Your task to perform on an android device: choose inbox layout in the gmail app Image 0: 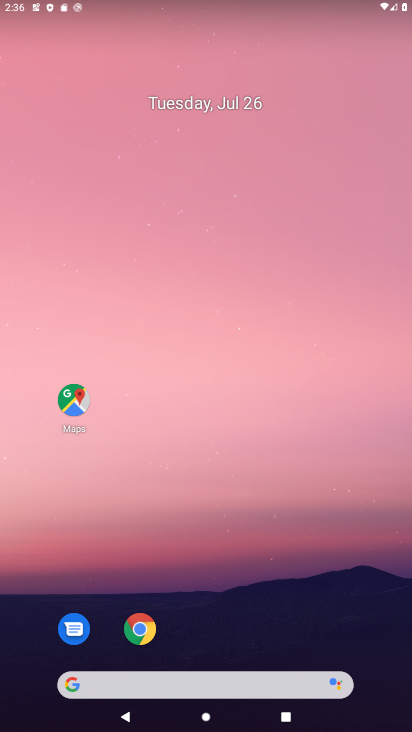
Step 0: drag from (210, 627) to (238, 233)
Your task to perform on an android device: choose inbox layout in the gmail app Image 1: 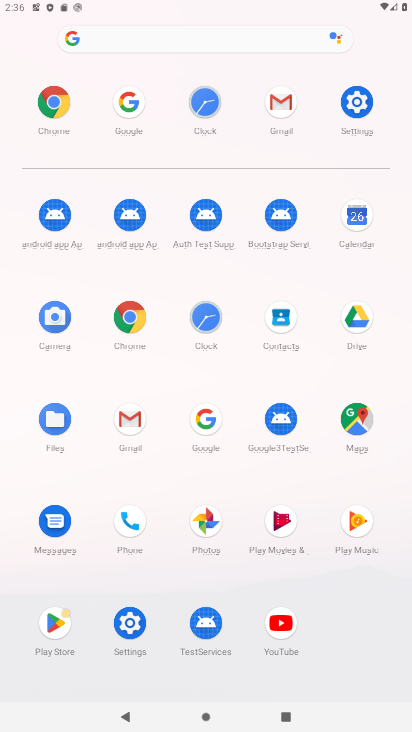
Step 1: click (281, 113)
Your task to perform on an android device: choose inbox layout in the gmail app Image 2: 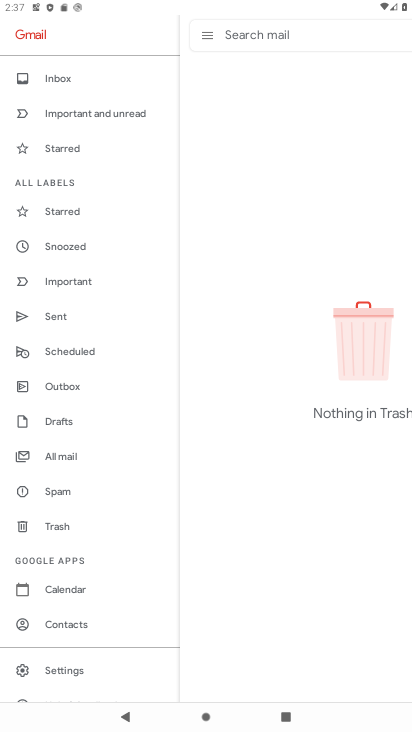
Step 2: click (90, 668)
Your task to perform on an android device: choose inbox layout in the gmail app Image 3: 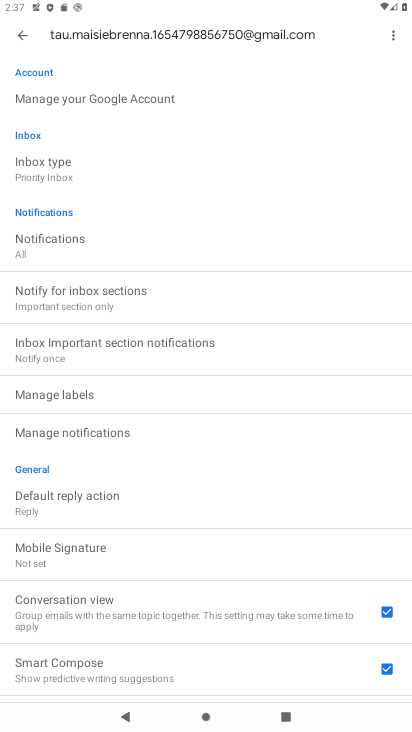
Step 3: click (113, 163)
Your task to perform on an android device: choose inbox layout in the gmail app Image 4: 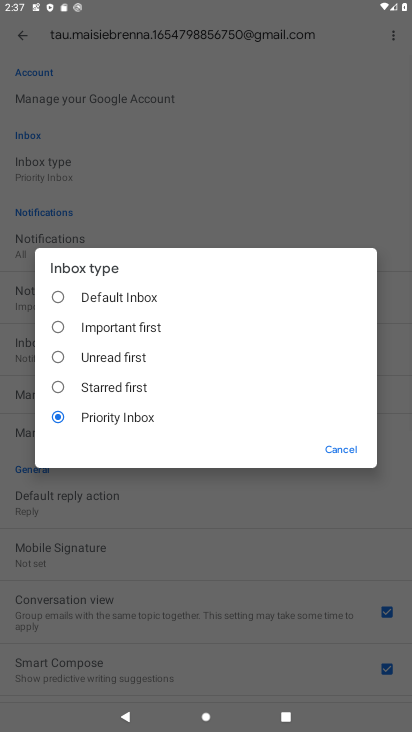
Step 4: click (125, 291)
Your task to perform on an android device: choose inbox layout in the gmail app Image 5: 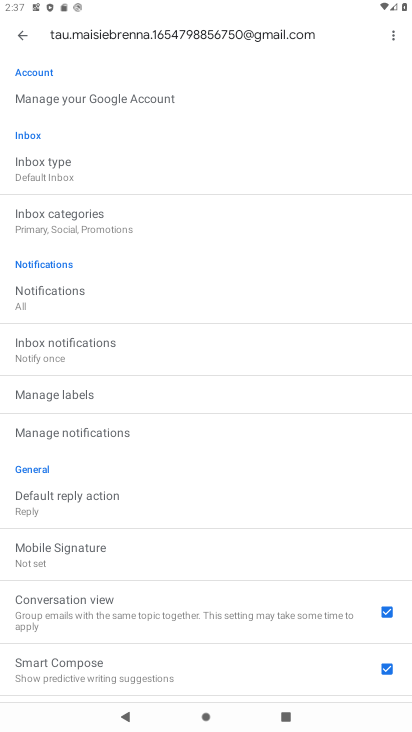
Step 5: task complete